Your task to perform on an android device: turn off smart reply in the gmail app Image 0: 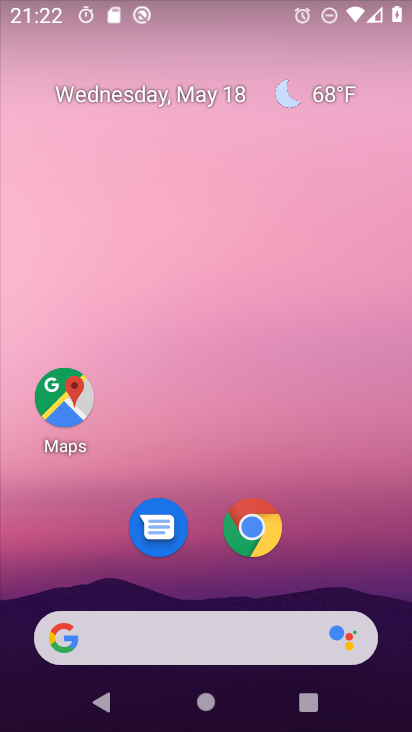
Step 0: drag from (388, 688) to (344, 298)
Your task to perform on an android device: turn off smart reply in the gmail app Image 1: 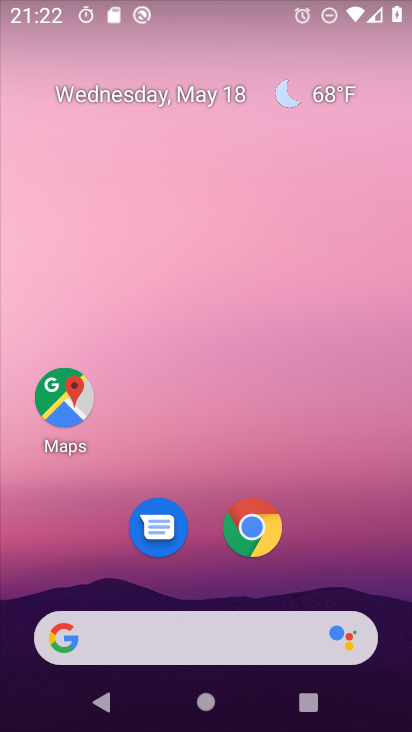
Step 1: drag from (398, 697) to (283, 82)
Your task to perform on an android device: turn off smart reply in the gmail app Image 2: 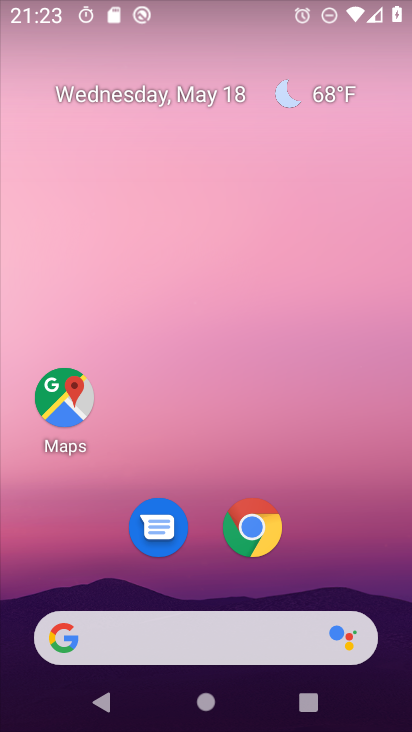
Step 2: drag from (401, 567) to (407, 230)
Your task to perform on an android device: turn off smart reply in the gmail app Image 3: 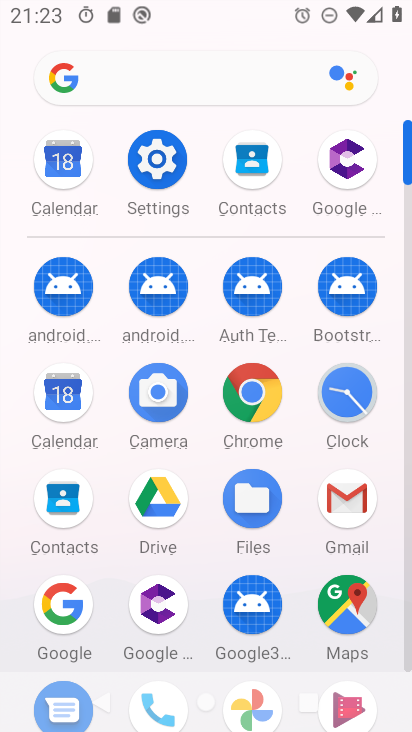
Step 3: click (332, 512)
Your task to perform on an android device: turn off smart reply in the gmail app Image 4: 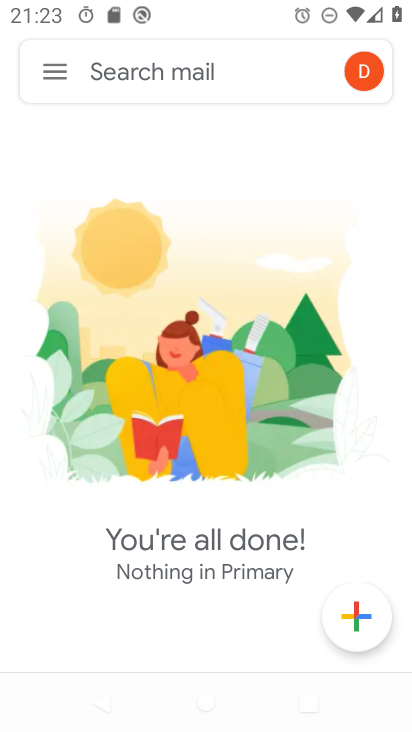
Step 4: click (45, 63)
Your task to perform on an android device: turn off smart reply in the gmail app Image 5: 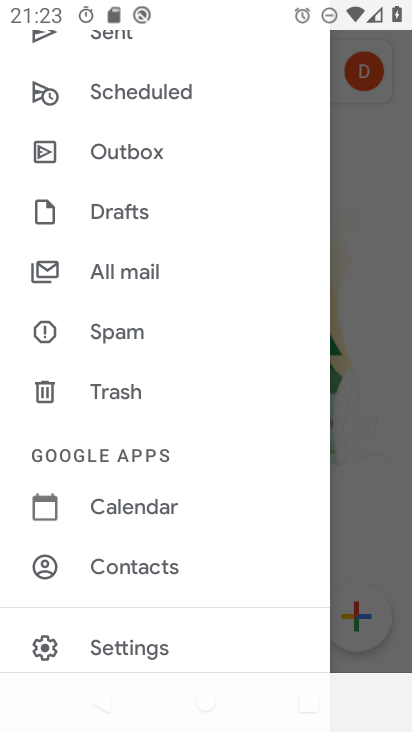
Step 5: drag from (218, 636) to (227, 395)
Your task to perform on an android device: turn off smart reply in the gmail app Image 6: 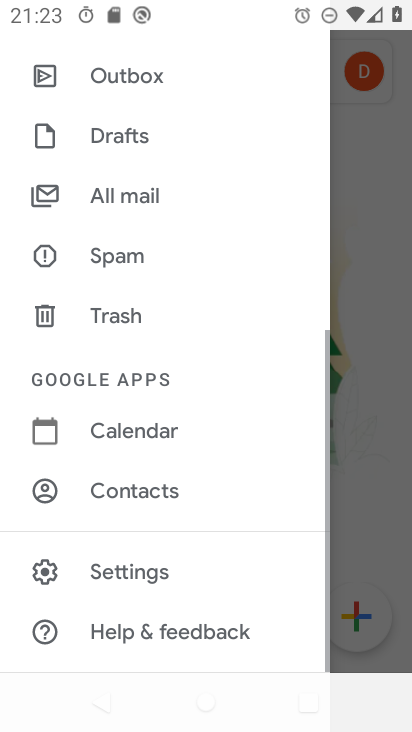
Step 6: click (100, 568)
Your task to perform on an android device: turn off smart reply in the gmail app Image 7: 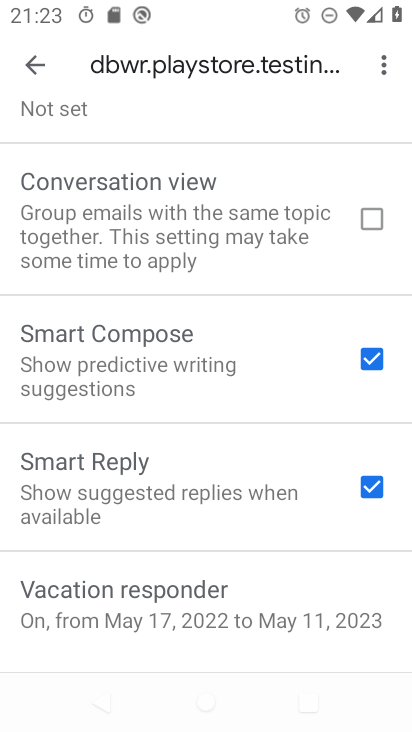
Step 7: drag from (264, 566) to (246, 392)
Your task to perform on an android device: turn off smart reply in the gmail app Image 8: 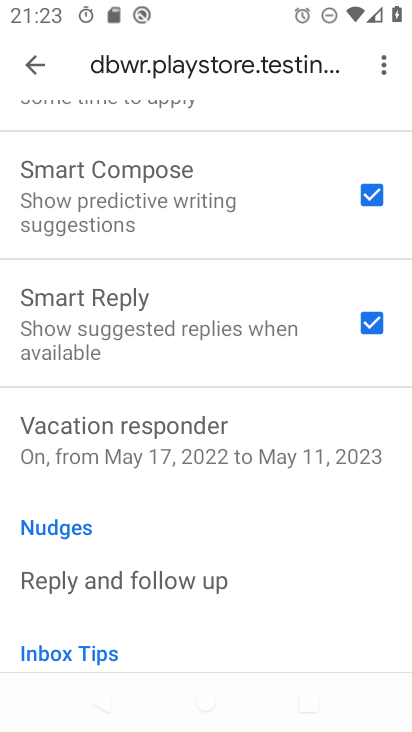
Step 8: click (380, 318)
Your task to perform on an android device: turn off smart reply in the gmail app Image 9: 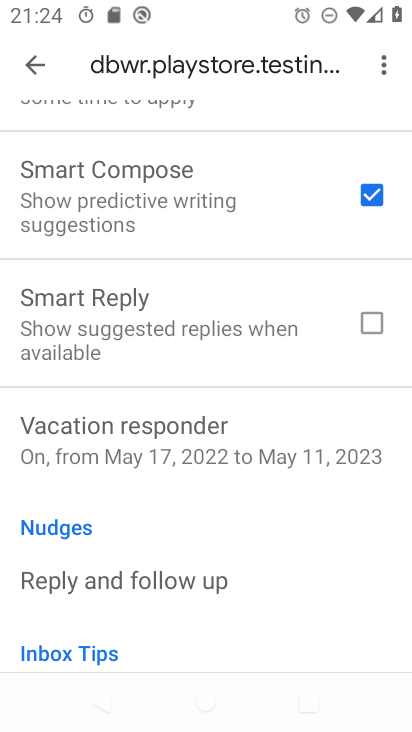
Step 9: task complete